Your task to perform on an android device: Search for macbook pro 15 inch on ebay, select the first entry, add it to the cart, then select checkout. Image 0: 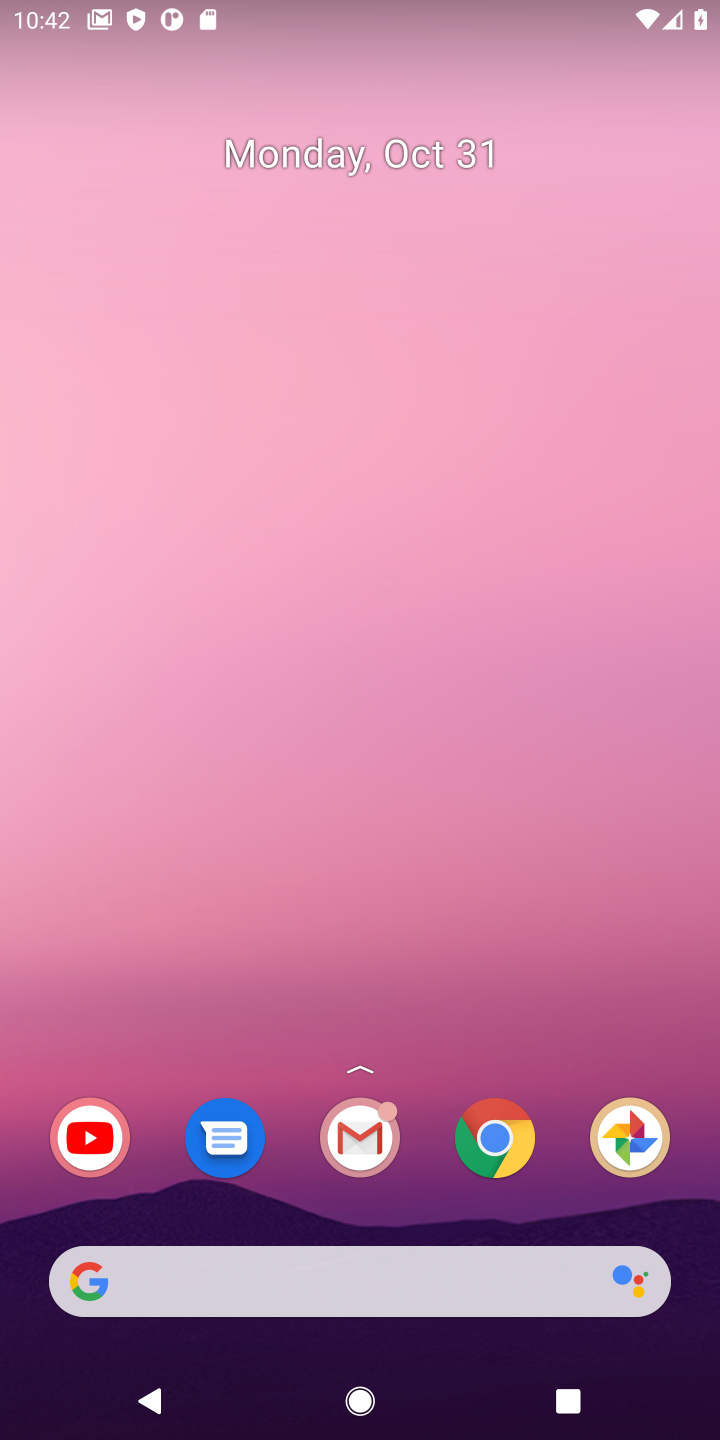
Step 0: click (512, 1136)
Your task to perform on an android device: Search for macbook pro 15 inch on ebay, select the first entry, add it to the cart, then select checkout. Image 1: 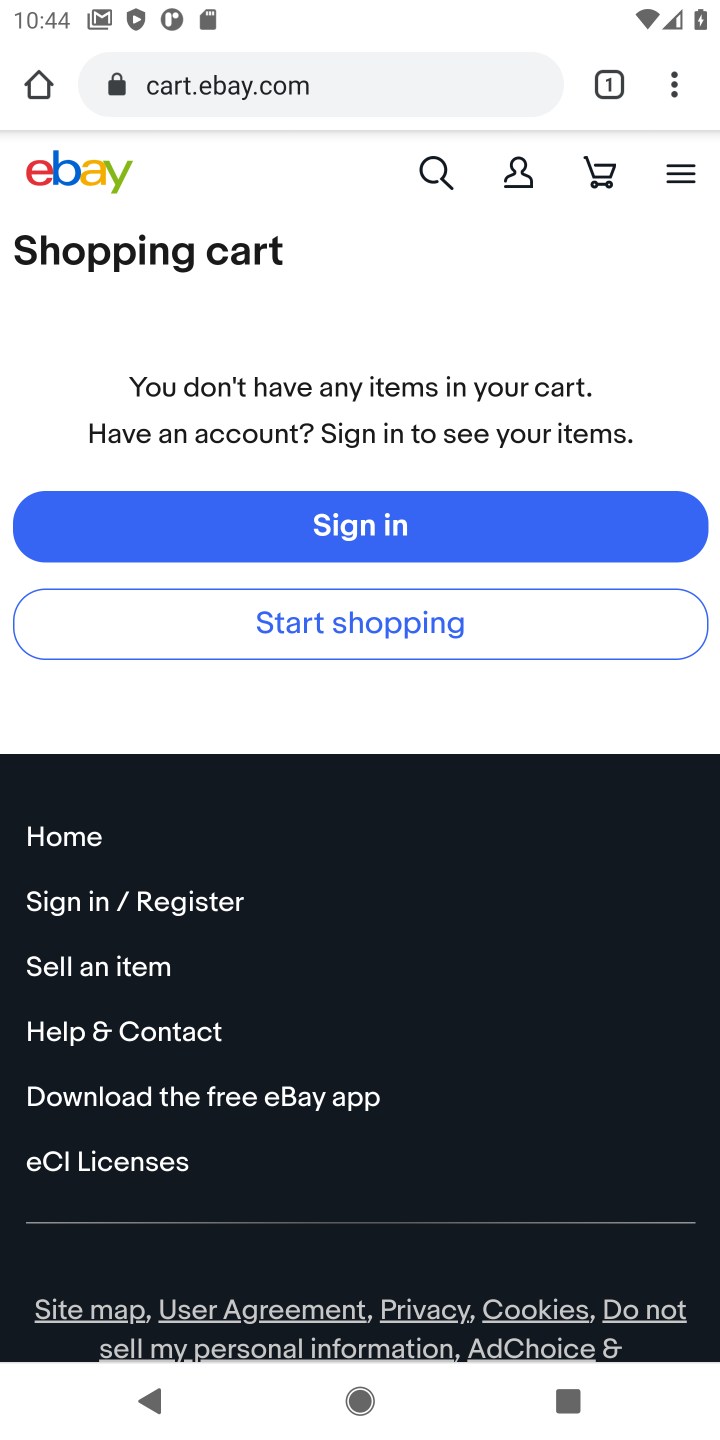
Step 1: click (316, 100)
Your task to perform on an android device: Search for macbook pro 15 inch on ebay, select the first entry, add it to the cart, then select checkout. Image 2: 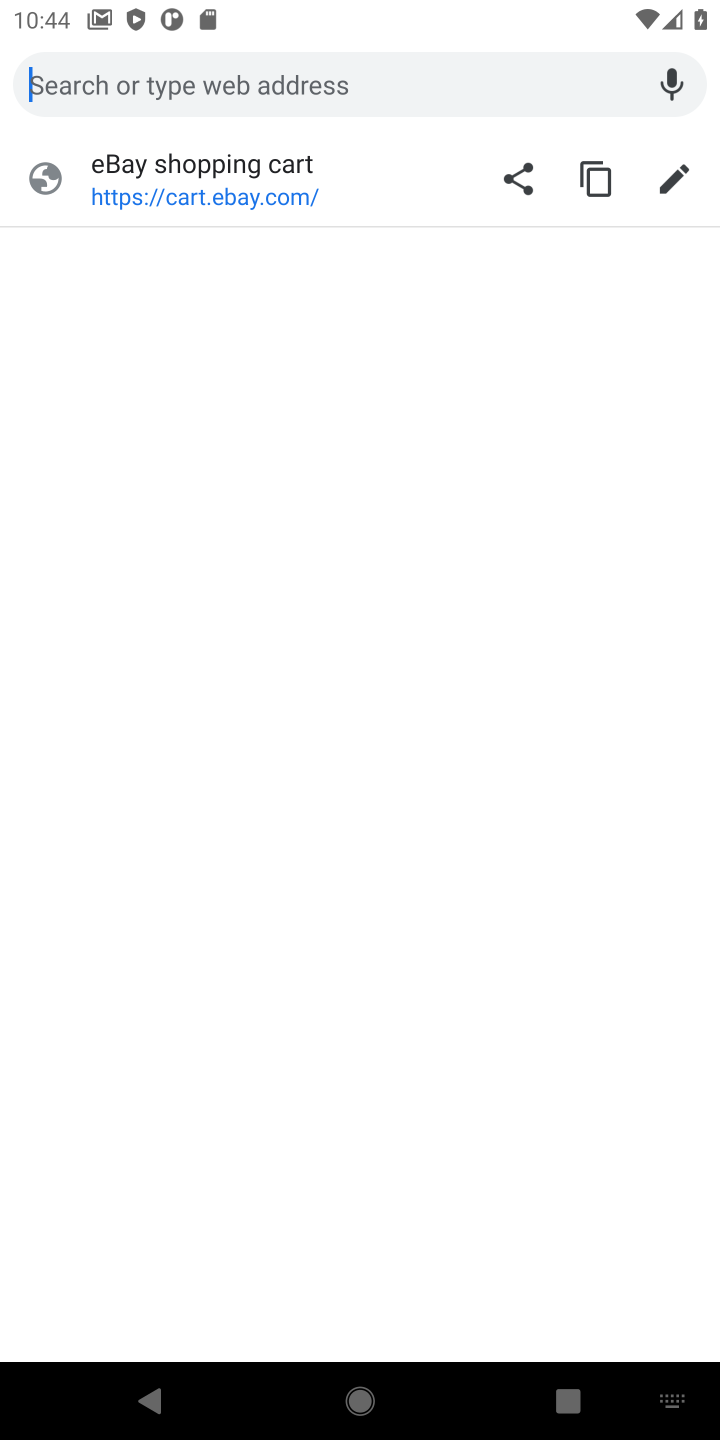
Step 2: press back button
Your task to perform on an android device: Search for macbook pro 15 inch on ebay, select the first entry, add it to the cart, then select checkout. Image 3: 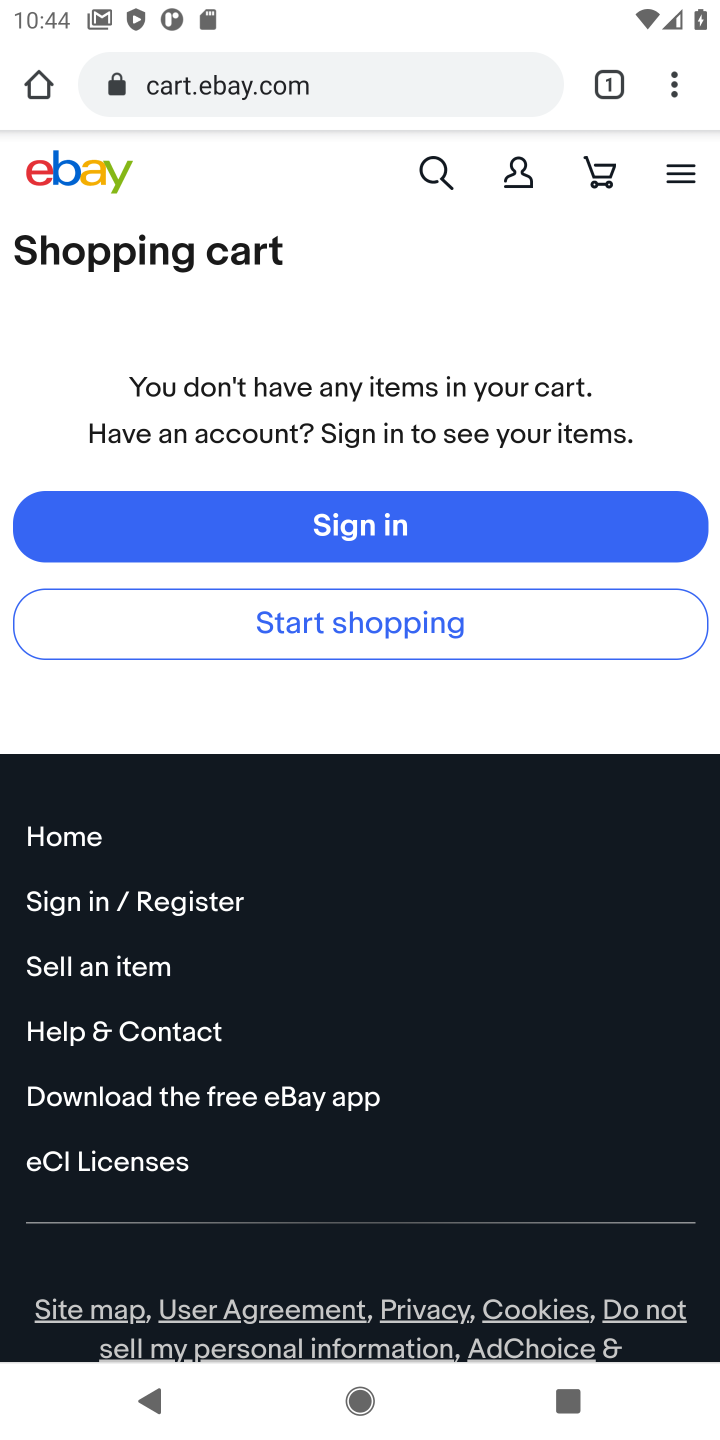
Step 3: click (436, 168)
Your task to perform on an android device: Search for macbook pro 15 inch on ebay, select the first entry, add it to the cart, then select checkout. Image 4: 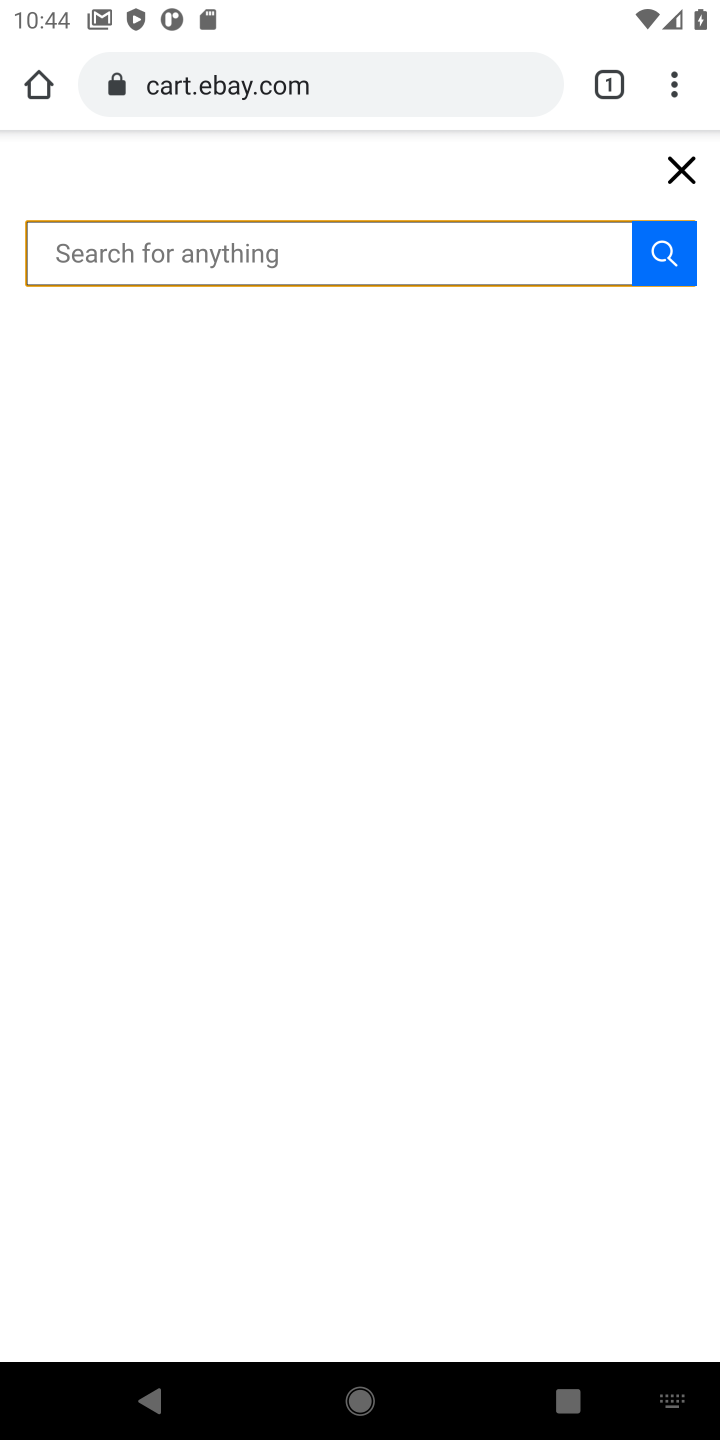
Step 4: type "macbook pro 15 inch"
Your task to perform on an android device: Search for macbook pro 15 inch on ebay, select the first entry, add it to the cart, then select checkout. Image 5: 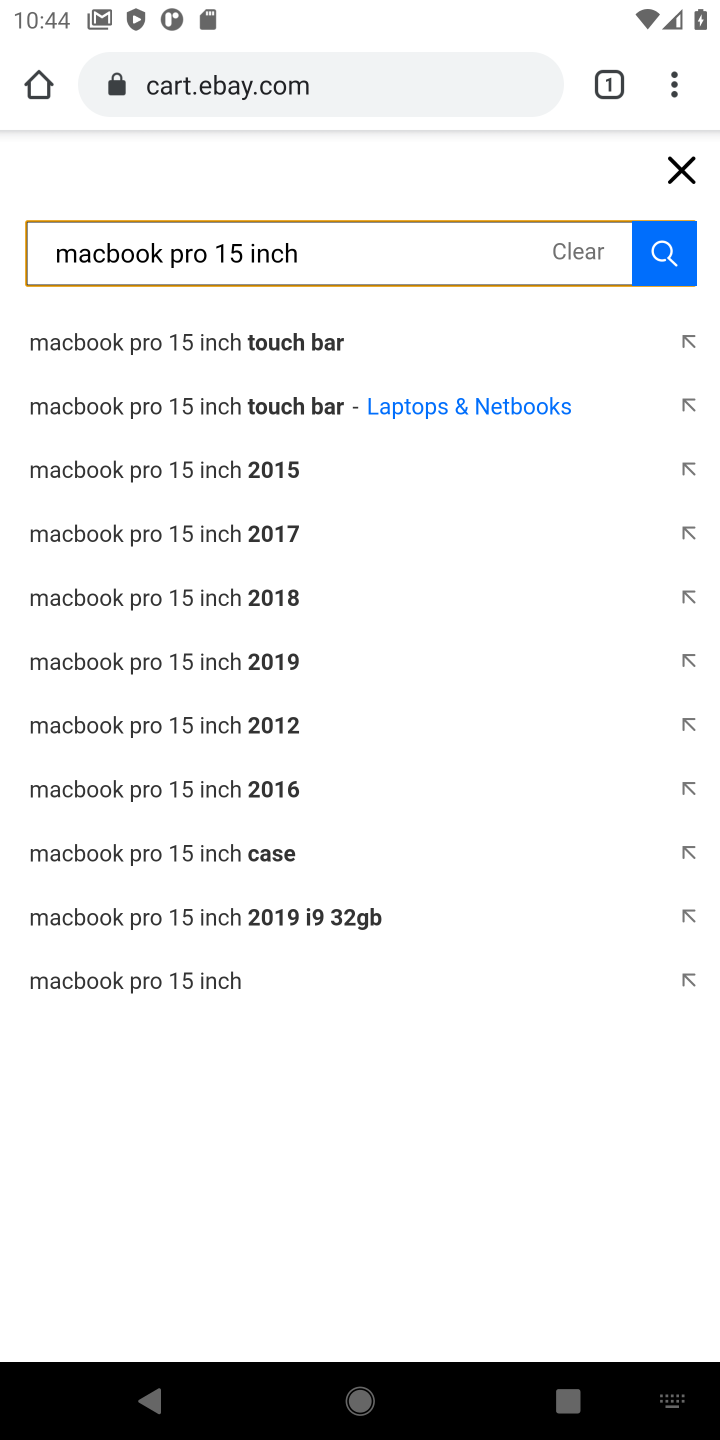
Step 5: click (655, 270)
Your task to perform on an android device: Search for macbook pro 15 inch on ebay, select the first entry, add it to the cart, then select checkout. Image 6: 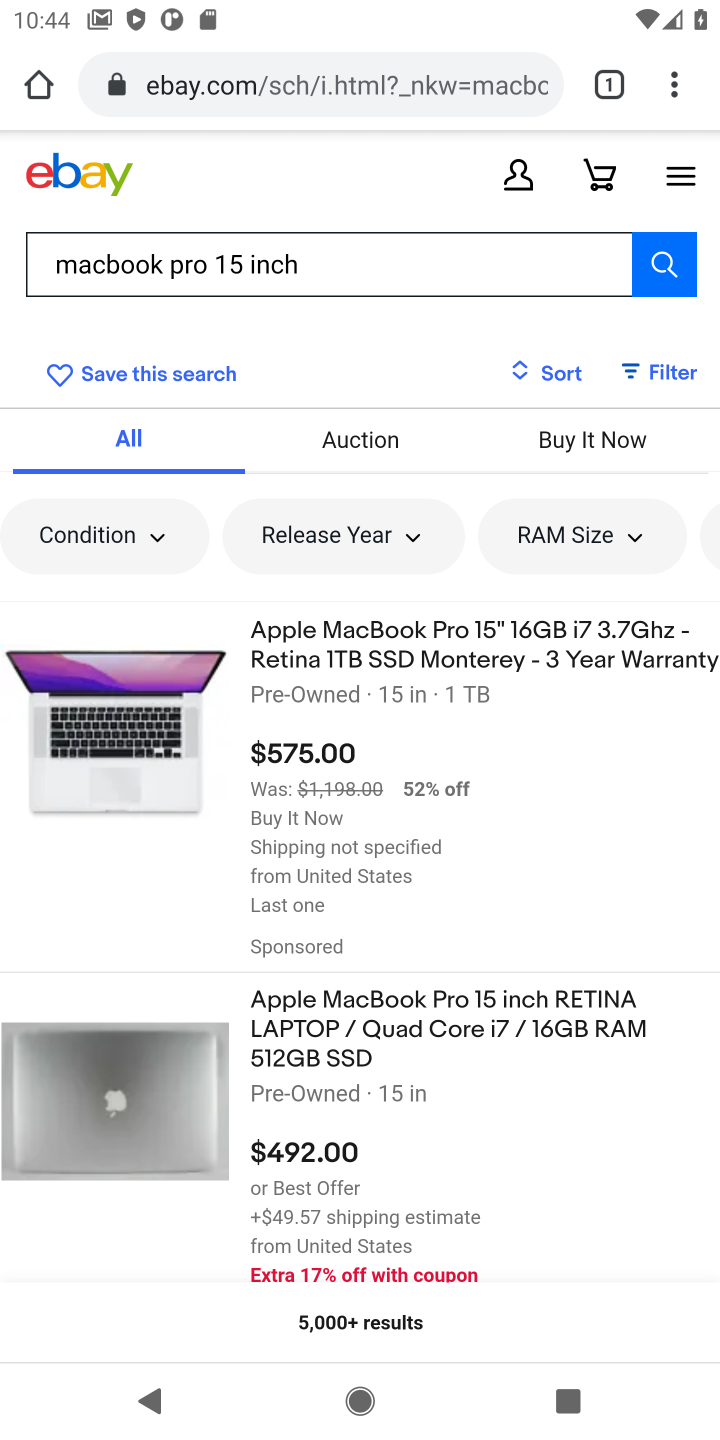
Step 6: click (354, 644)
Your task to perform on an android device: Search for macbook pro 15 inch on ebay, select the first entry, add it to the cart, then select checkout. Image 7: 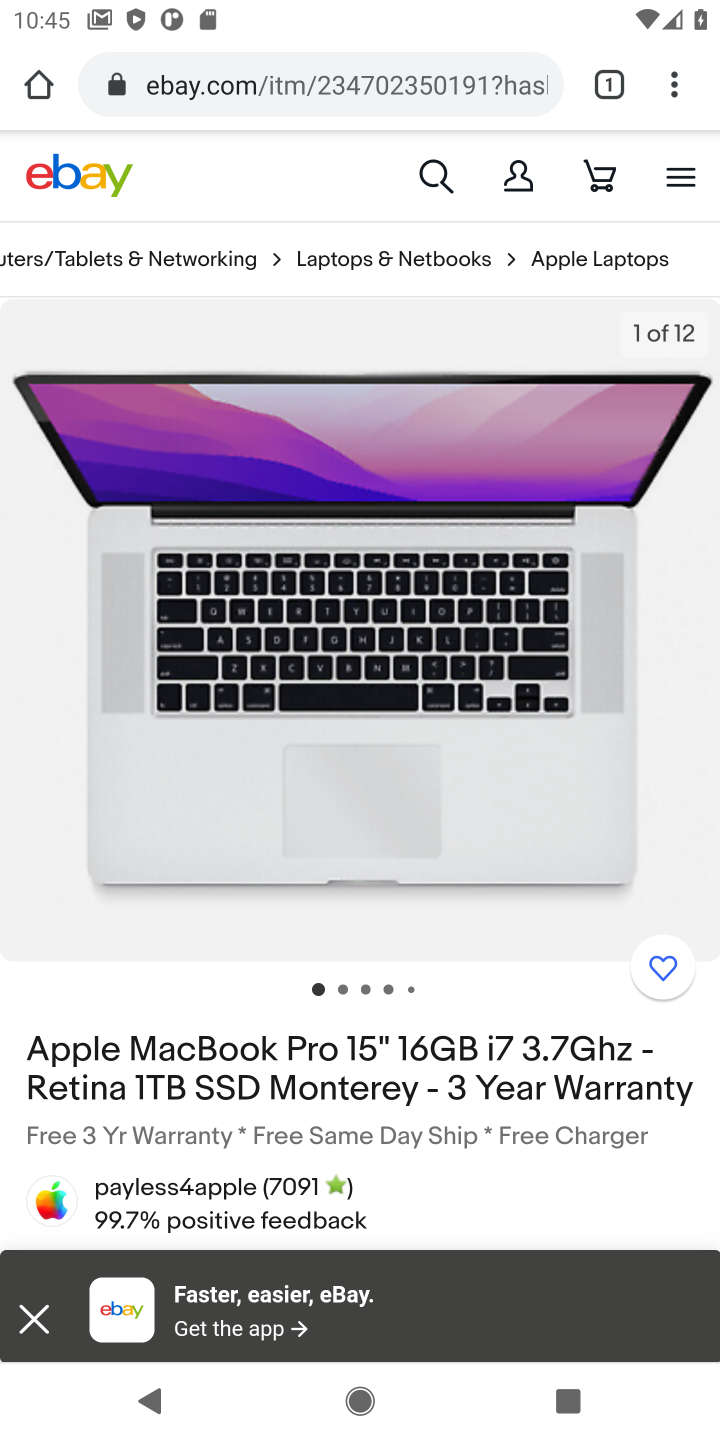
Step 7: drag from (314, 1301) to (398, 545)
Your task to perform on an android device: Search for macbook pro 15 inch on ebay, select the first entry, add it to the cart, then select checkout. Image 8: 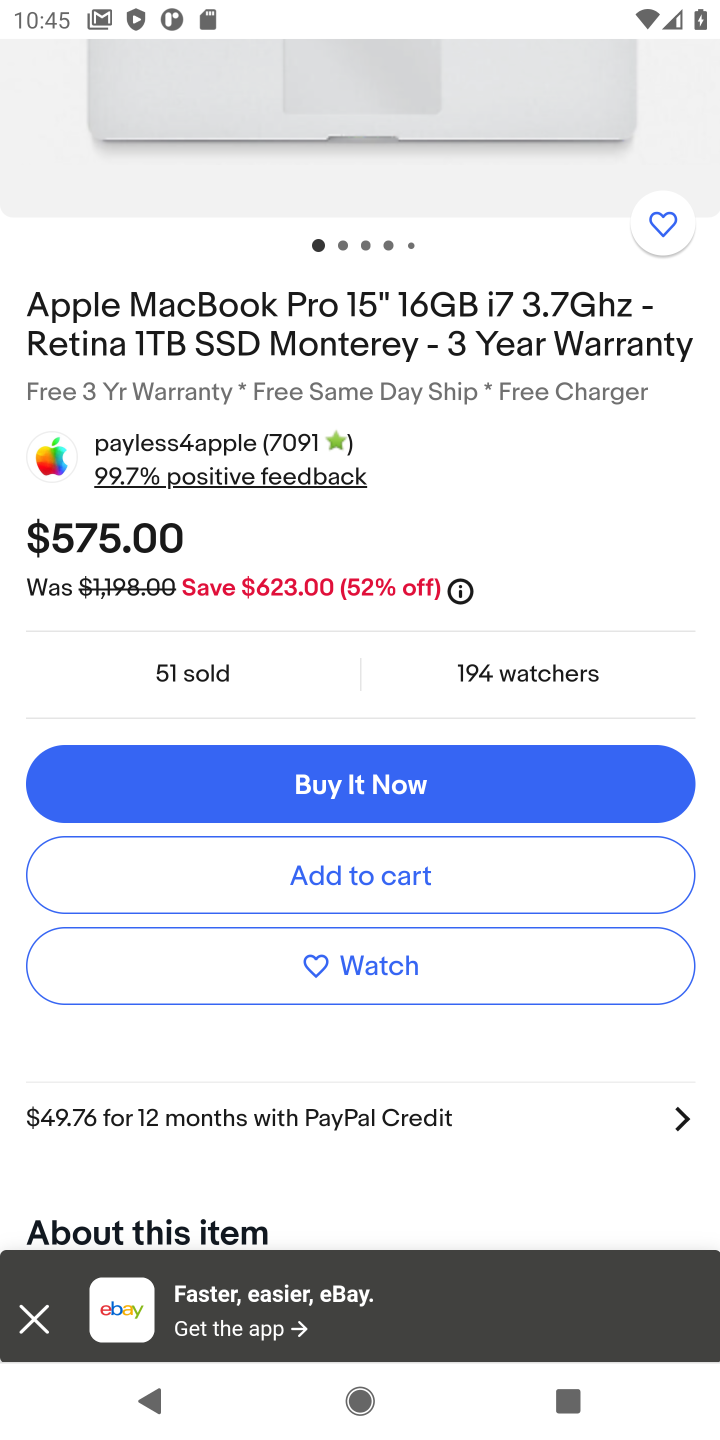
Step 8: click (332, 1231)
Your task to perform on an android device: Search for macbook pro 15 inch on ebay, select the first entry, add it to the cart, then select checkout. Image 9: 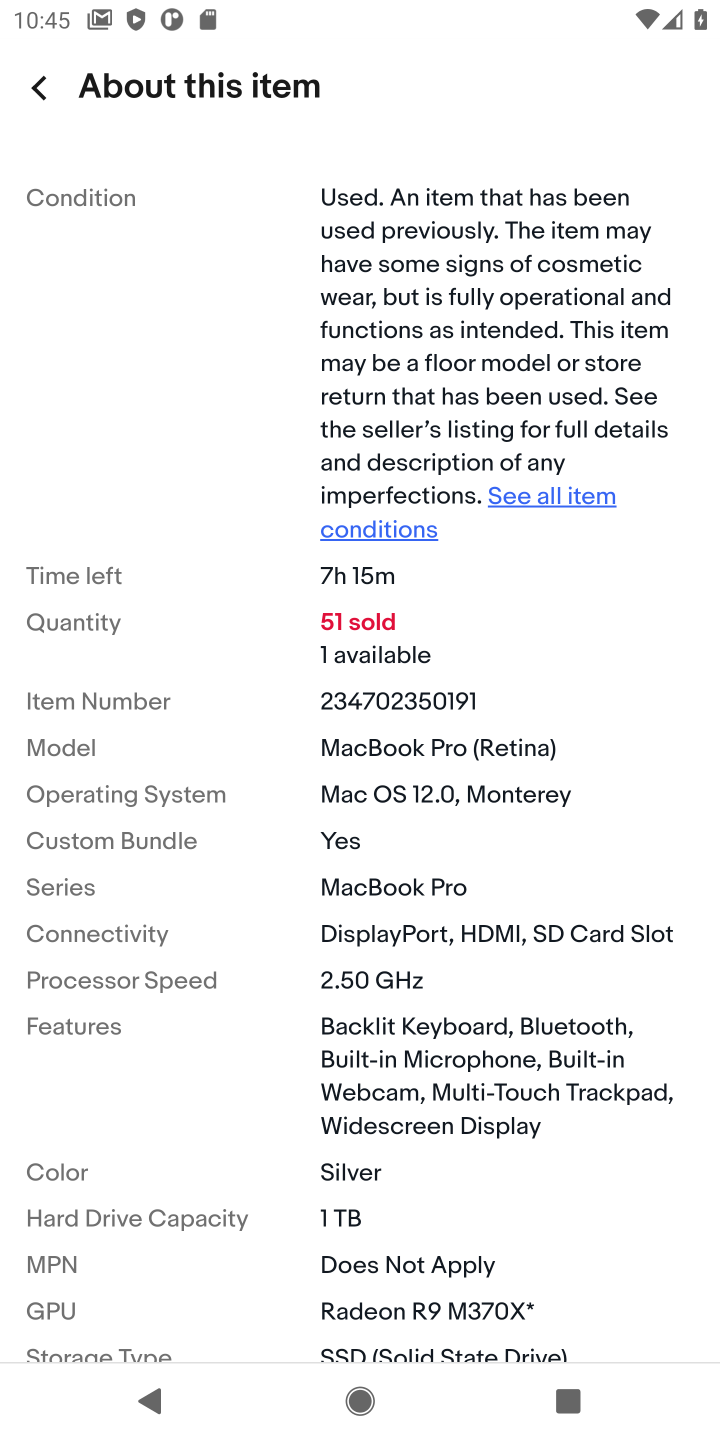
Step 9: press back button
Your task to perform on an android device: Search for macbook pro 15 inch on ebay, select the first entry, add it to the cart, then select checkout. Image 10: 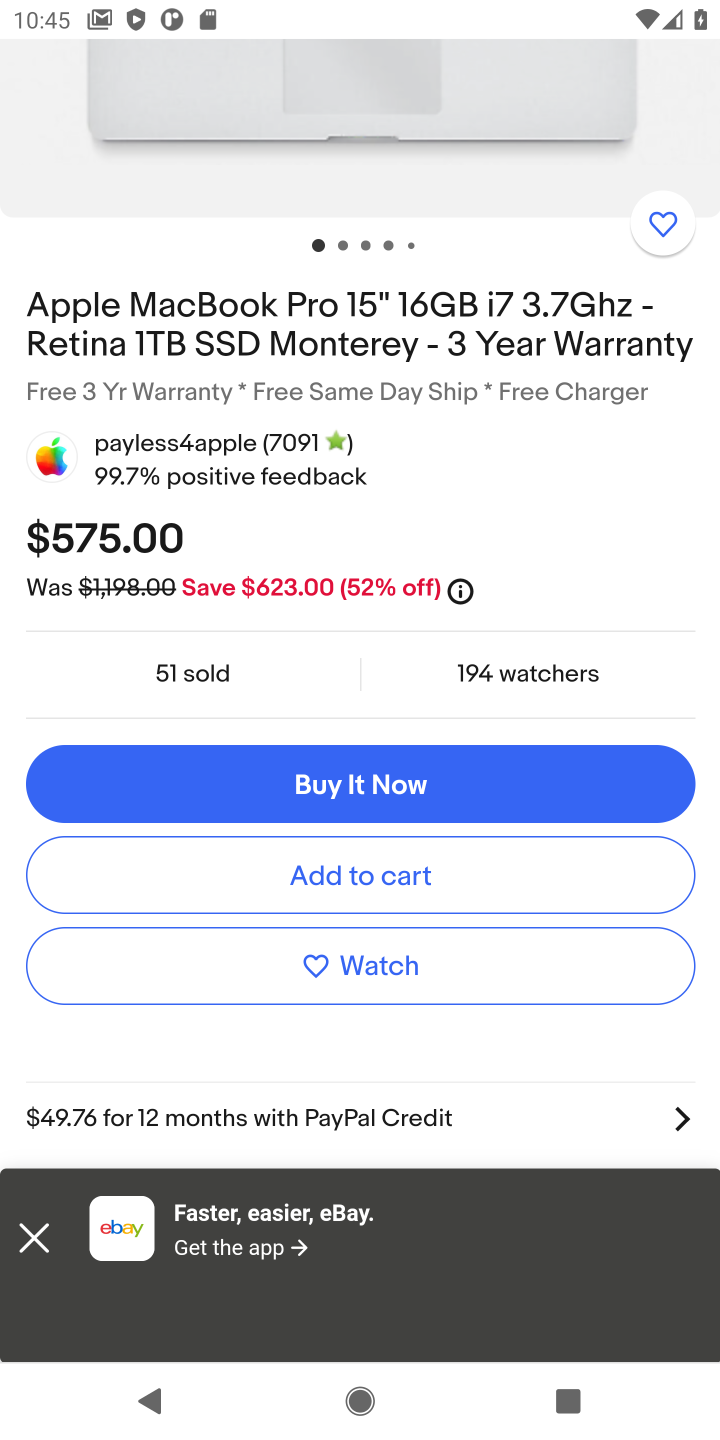
Step 10: click (193, 896)
Your task to perform on an android device: Search for macbook pro 15 inch on ebay, select the first entry, add it to the cart, then select checkout. Image 11: 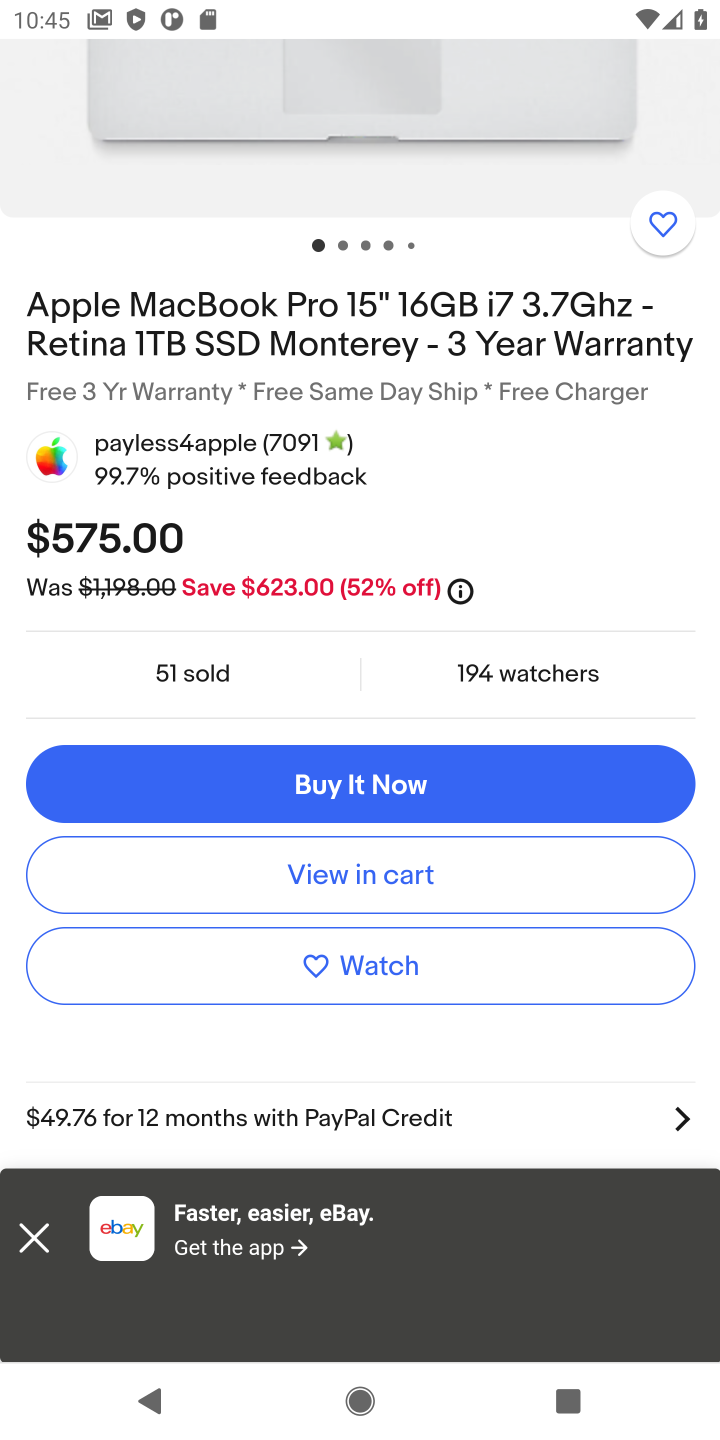
Step 11: click (388, 873)
Your task to perform on an android device: Search for macbook pro 15 inch on ebay, select the first entry, add it to the cart, then select checkout. Image 12: 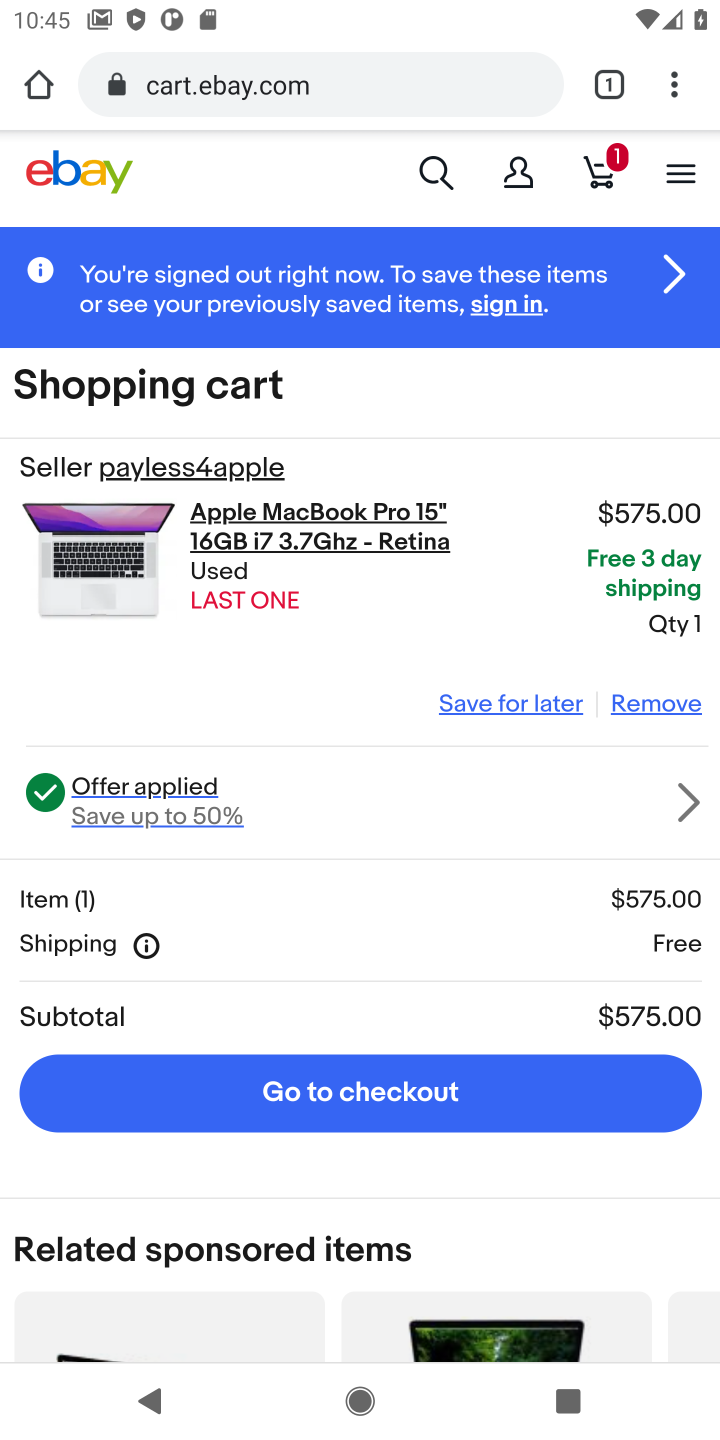
Step 12: click (312, 1098)
Your task to perform on an android device: Search for macbook pro 15 inch on ebay, select the first entry, add it to the cart, then select checkout. Image 13: 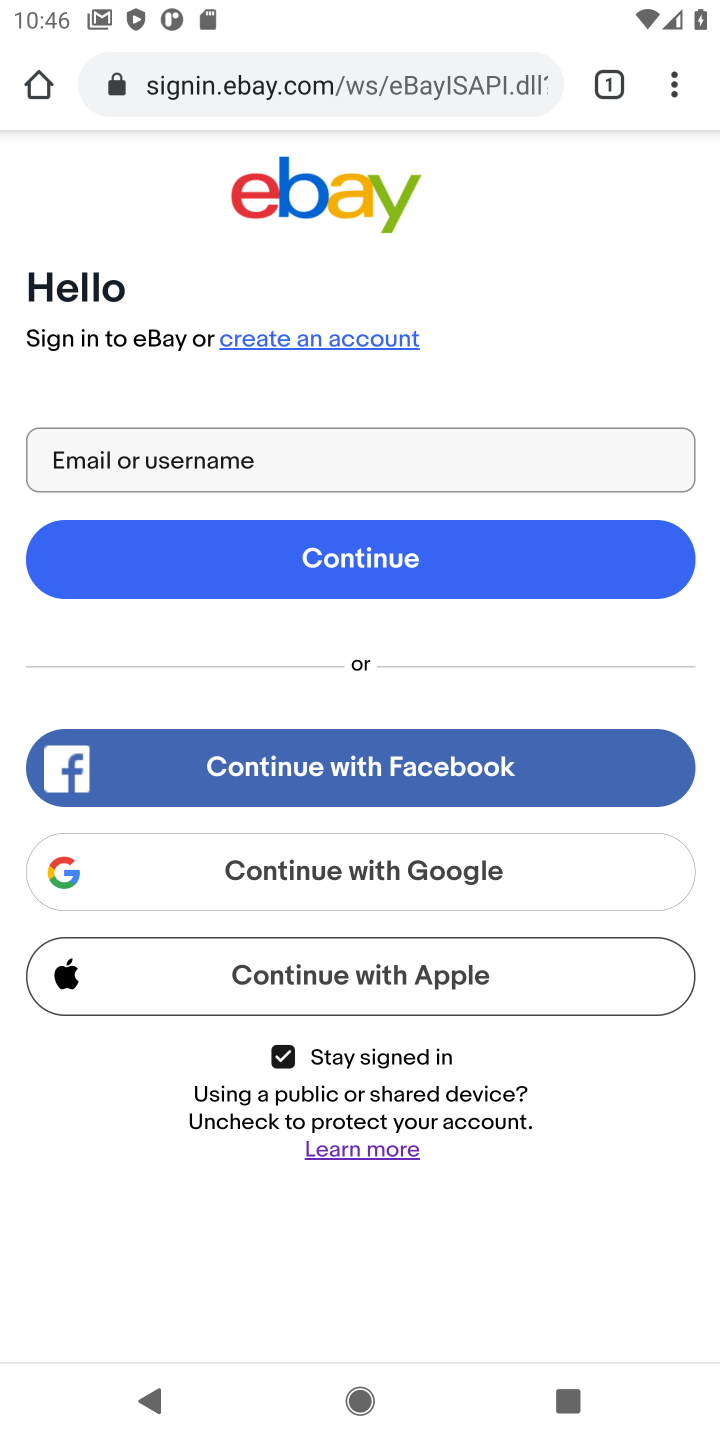
Step 13: task complete